Your task to perform on an android device: set the timer Image 0: 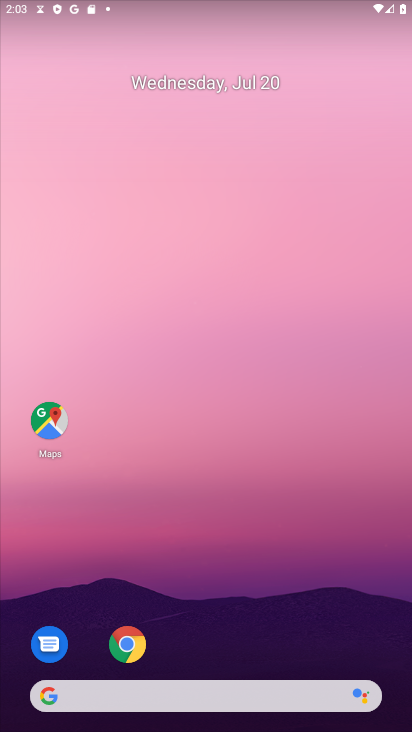
Step 0: drag from (243, 655) to (321, 108)
Your task to perform on an android device: set the timer Image 1: 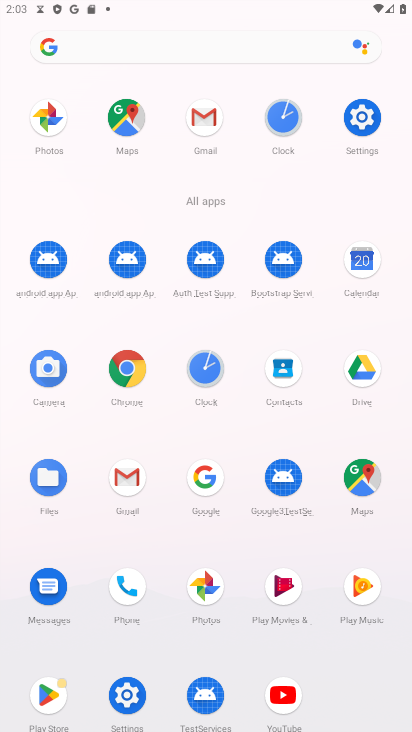
Step 1: click (285, 126)
Your task to perform on an android device: set the timer Image 2: 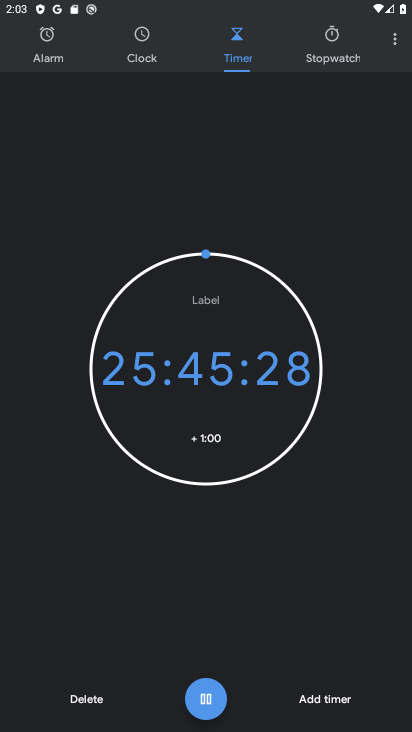
Step 2: click (210, 697)
Your task to perform on an android device: set the timer Image 3: 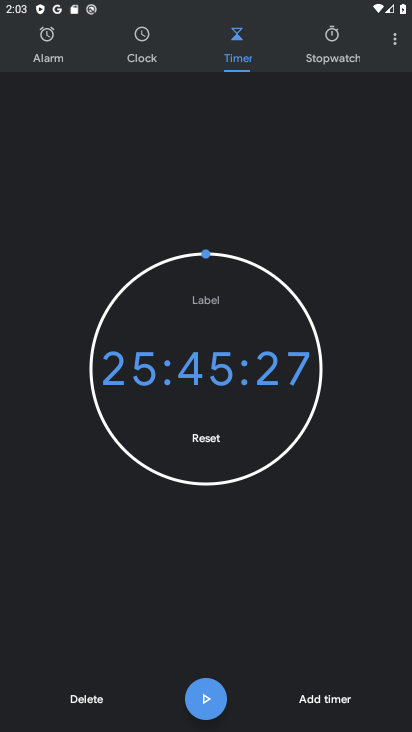
Step 3: click (203, 702)
Your task to perform on an android device: set the timer Image 4: 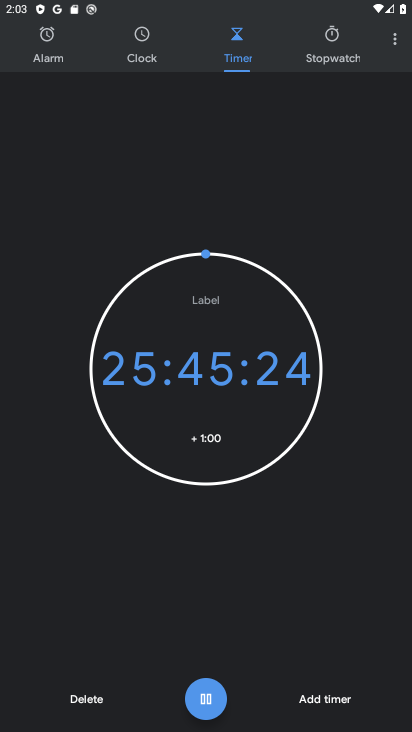
Step 4: task complete